Your task to perform on an android device: Show me recent news Image 0: 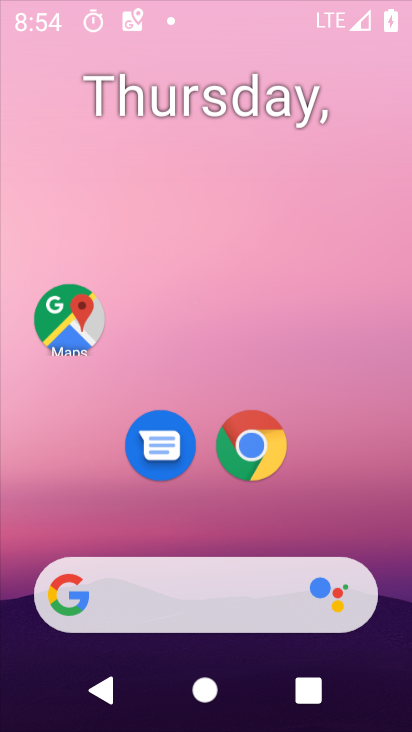
Step 0: drag from (196, 528) to (203, 161)
Your task to perform on an android device: Show me recent news Image 1: 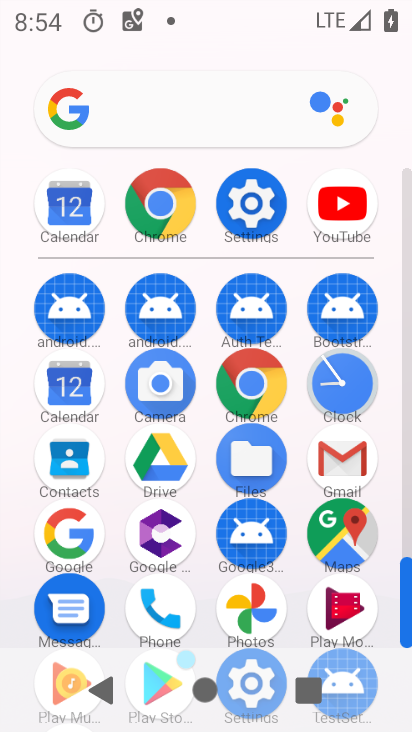
Step 1: click (191, 102)
Your task to perform on an android device: Show me recent news Image 2: 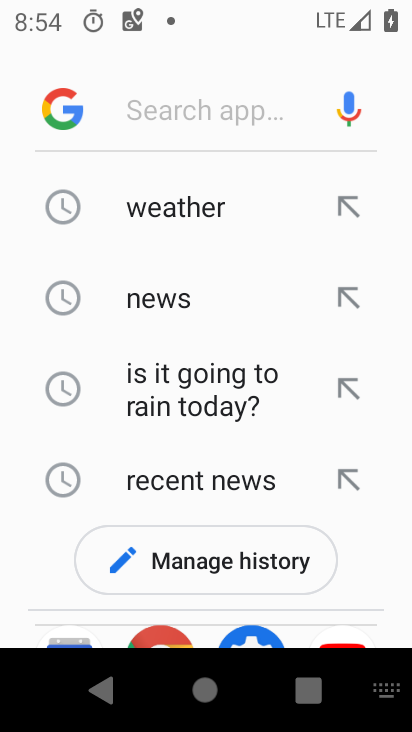
Step 2: click (223, 494)
Your task to perform on an android device: Show me recent news Image 3: 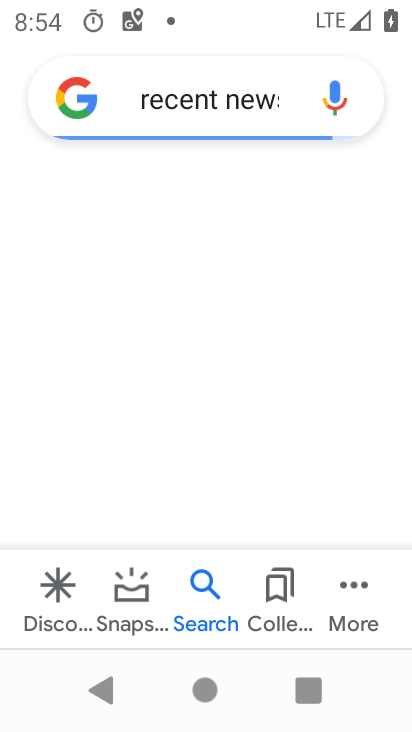
Step 3: task complete